Your task to perform on an android device: Open the web browser Image 0: 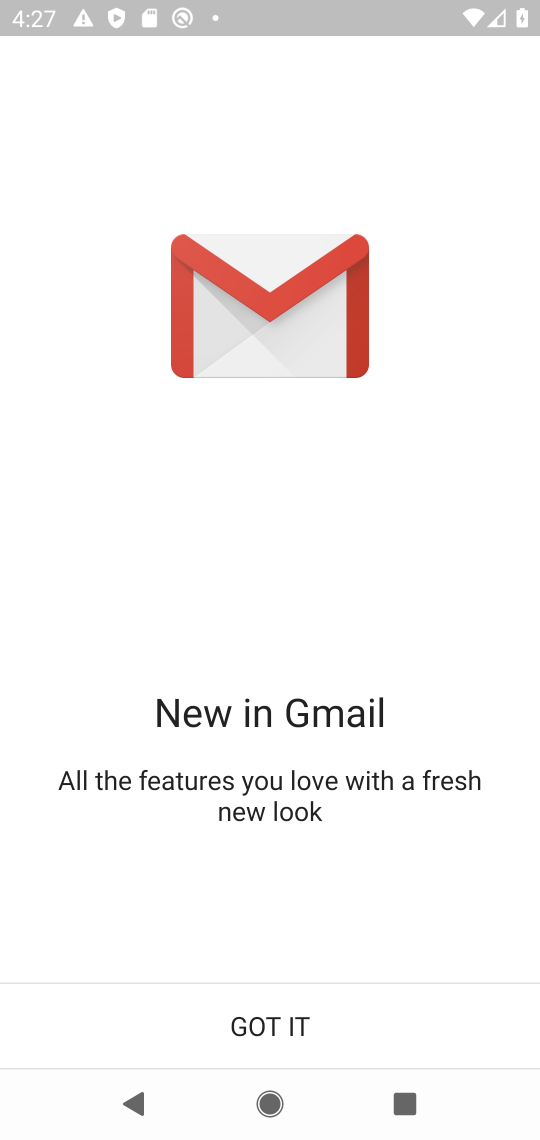
Step 0: press home button
Your task to perform on an android device: Open the web browser Image 1: 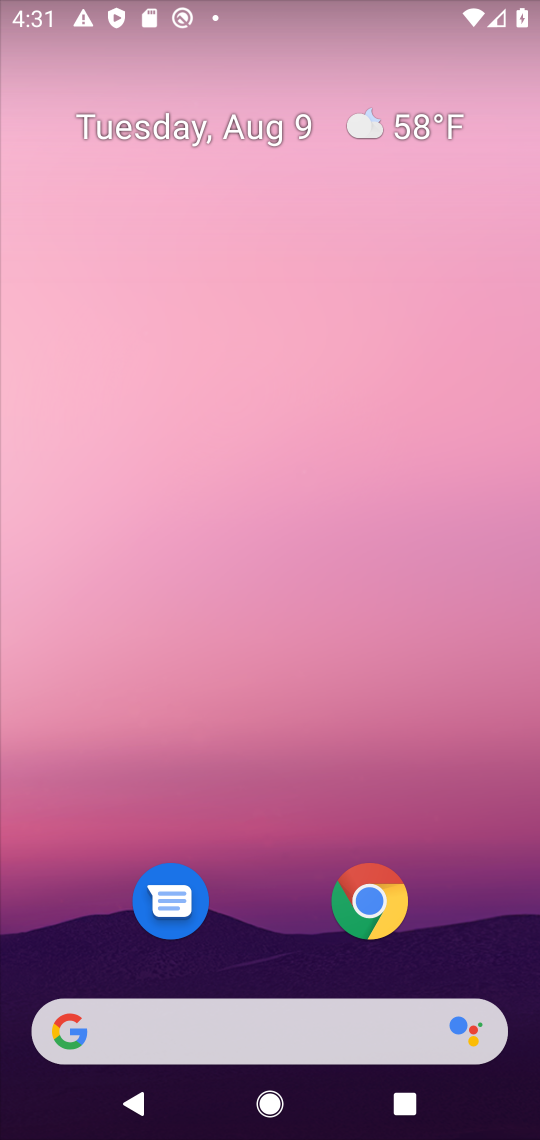
Step 1: click (345, 929)
Your task to perform on an android device: Open the web browser Image 2: 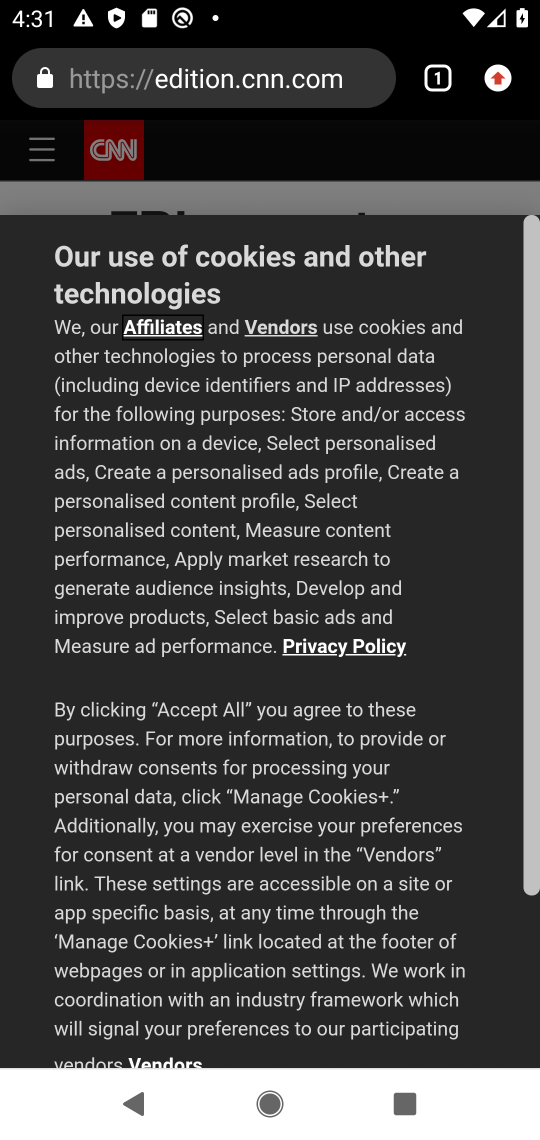
Step 2: click (343, 68)
Your task to perform on an android device: Open the web browser Image 3: 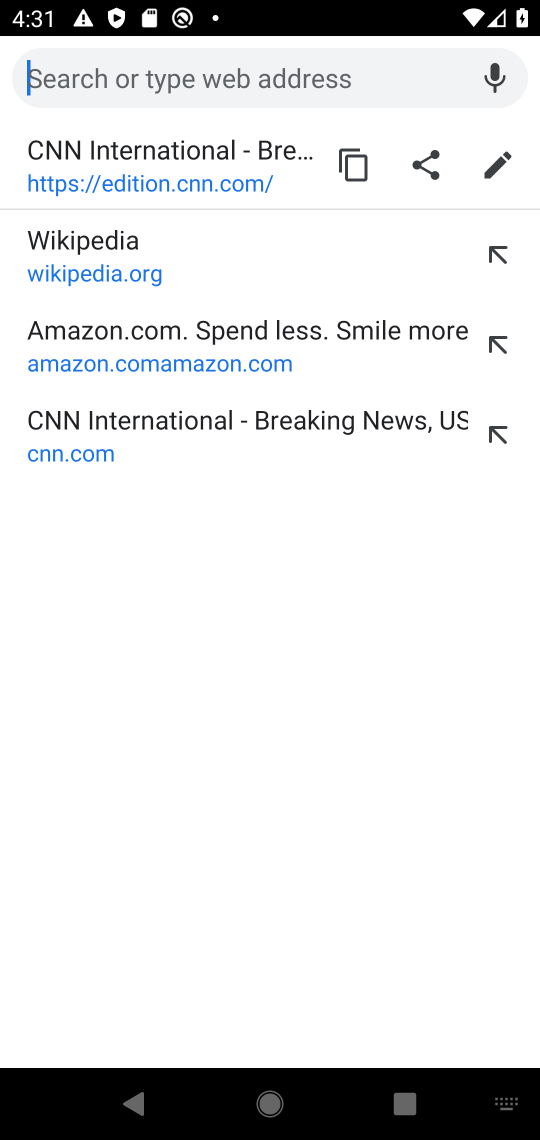
Step 3: type "web browser"
Your task to perform on an android device: Open the web browser Image 4: 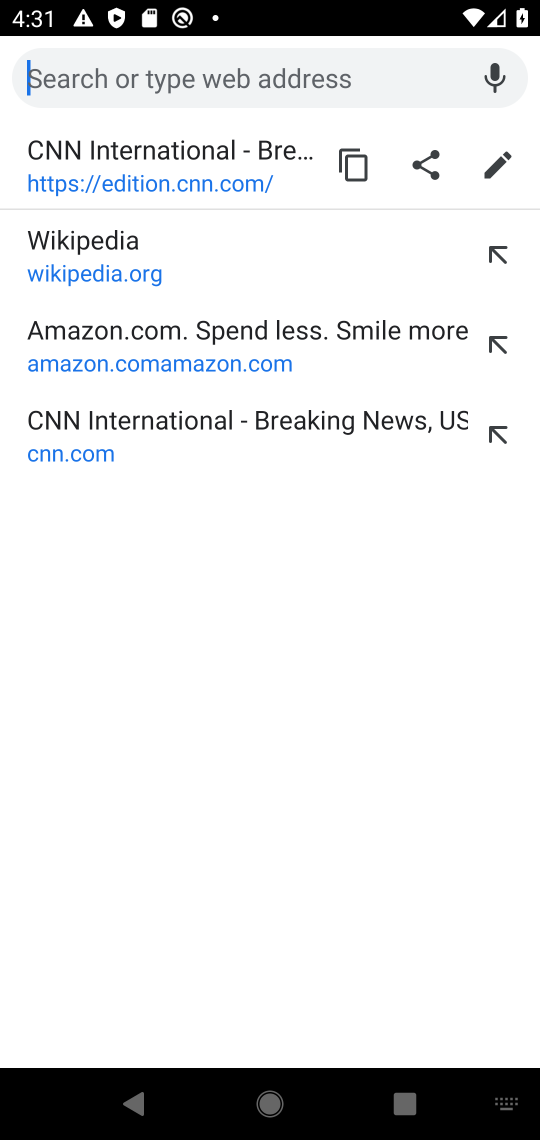
Step 4: click (112, 154)
Your task to perform on an android device: Open the web browser Image 5: 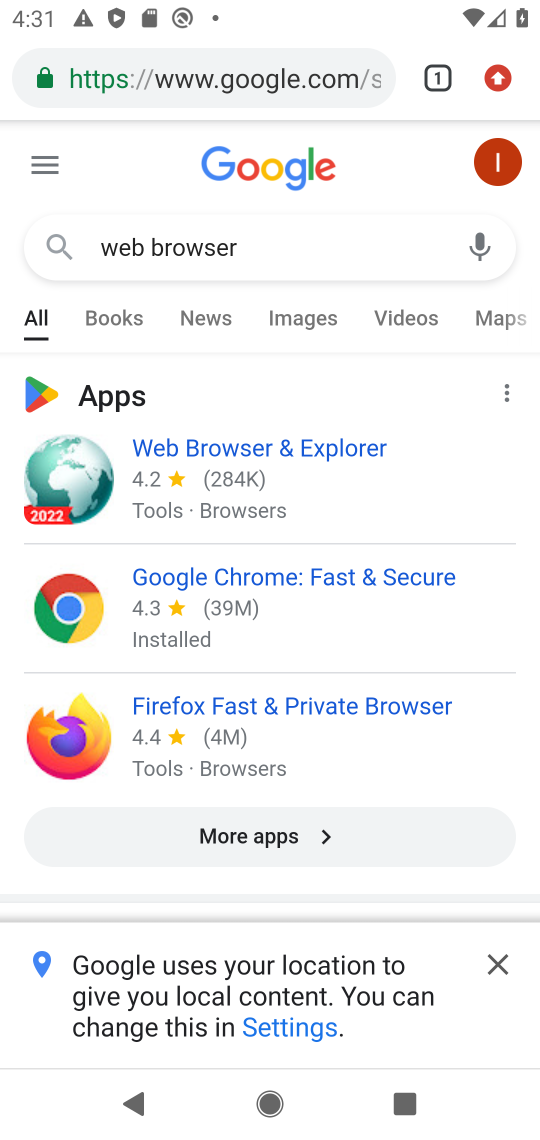
Step 5: task complete